Your task to perform on an android device: Go to Amazon Image 0: 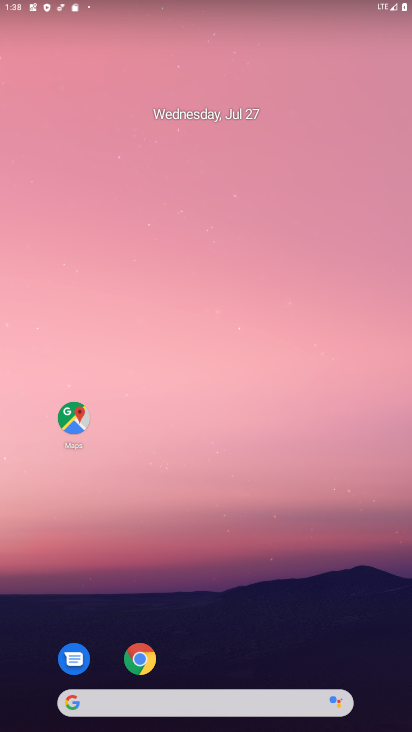
Step 0: click (137, 660)
Your task to perform on an android device: Go to Amazon Image 1: 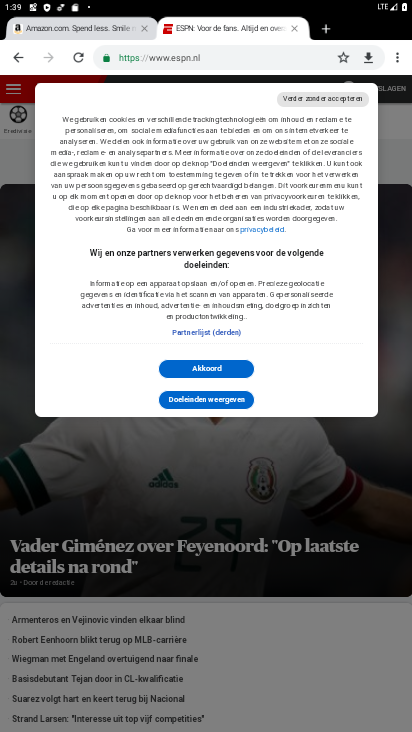
Step 1: click (199, 367)
Your task to perform on an android device: Go to Amazon Image 2: 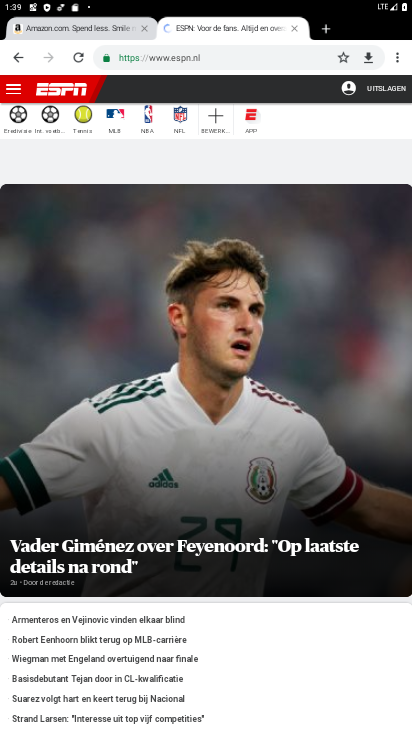
Step 2: click (395, 61)
Your task to perform on an android device: Go to Amazon Image 3: 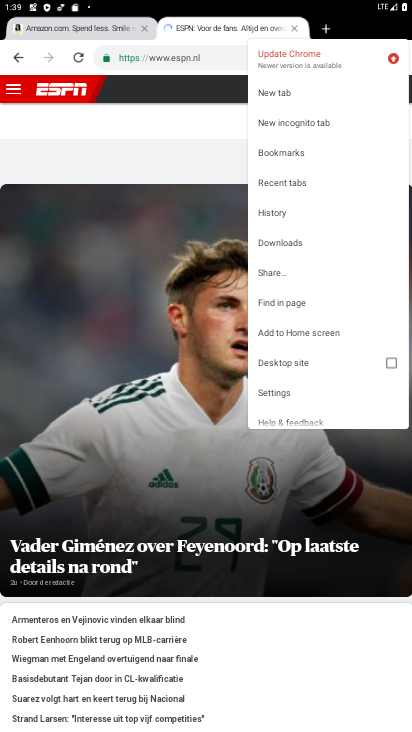
Step 3: click (277, 89)
Your task to perform on an android device: Go to Amazon Image 4: 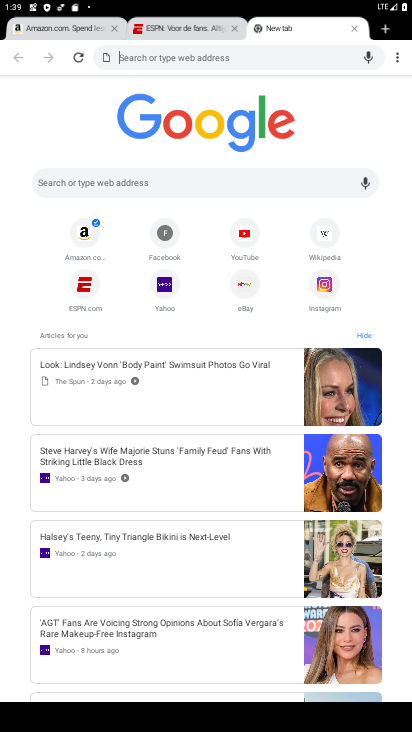
Step 4: click (87, 234)
Your task to perform on an android device: Go to Amazon Image 5: 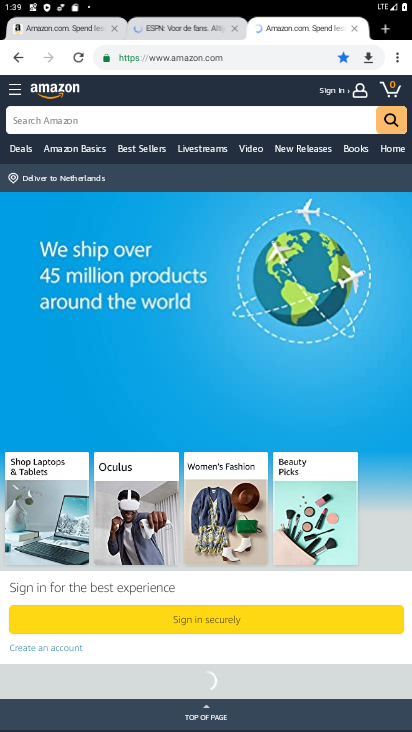
Step 5: task complete